Your task to perform on an android device: Search for "usb-c to usb-b" on costco.com, select the first entry, and add it to the cart. Image 0: 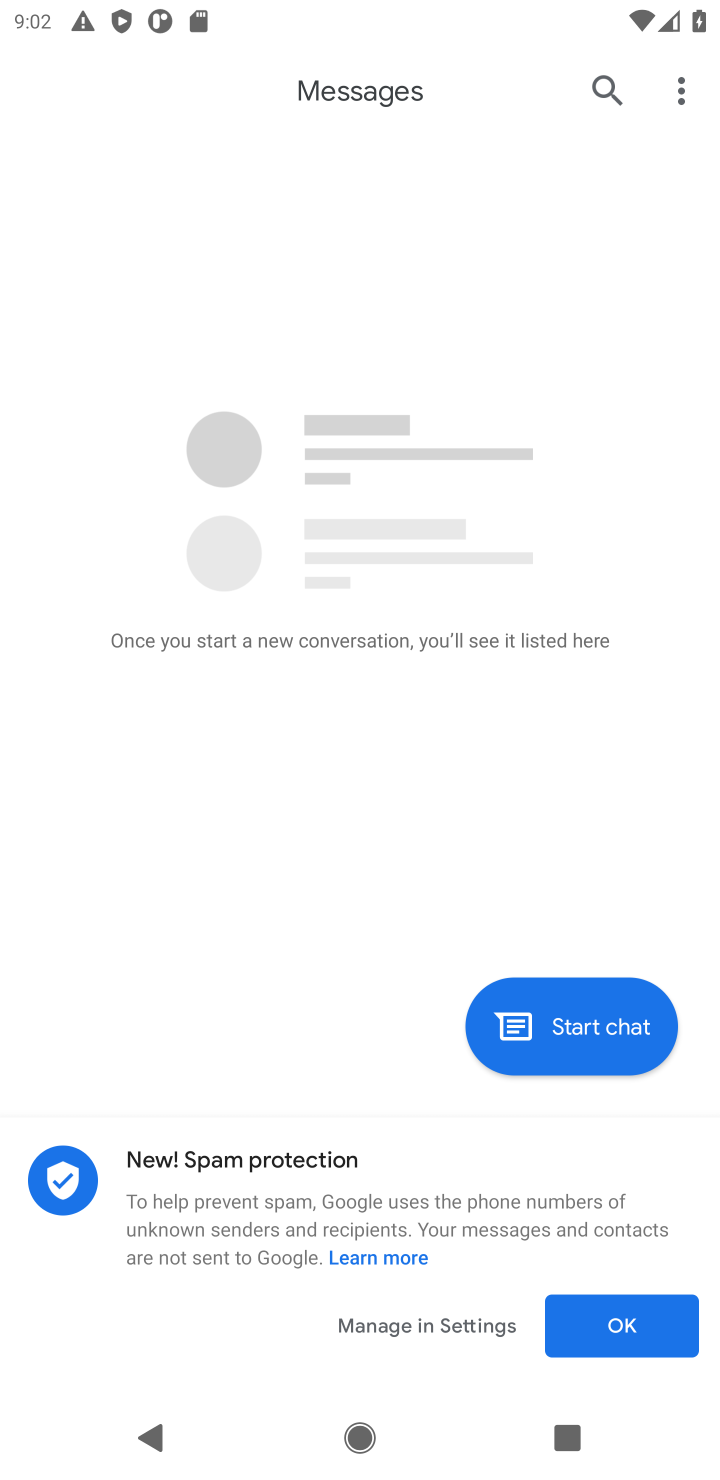
Step 0: press home button
Your task to perform on an android device: Search for "usb-c to usb-b" on costco.com, select the first entry, and add it to the cart. Image 1: 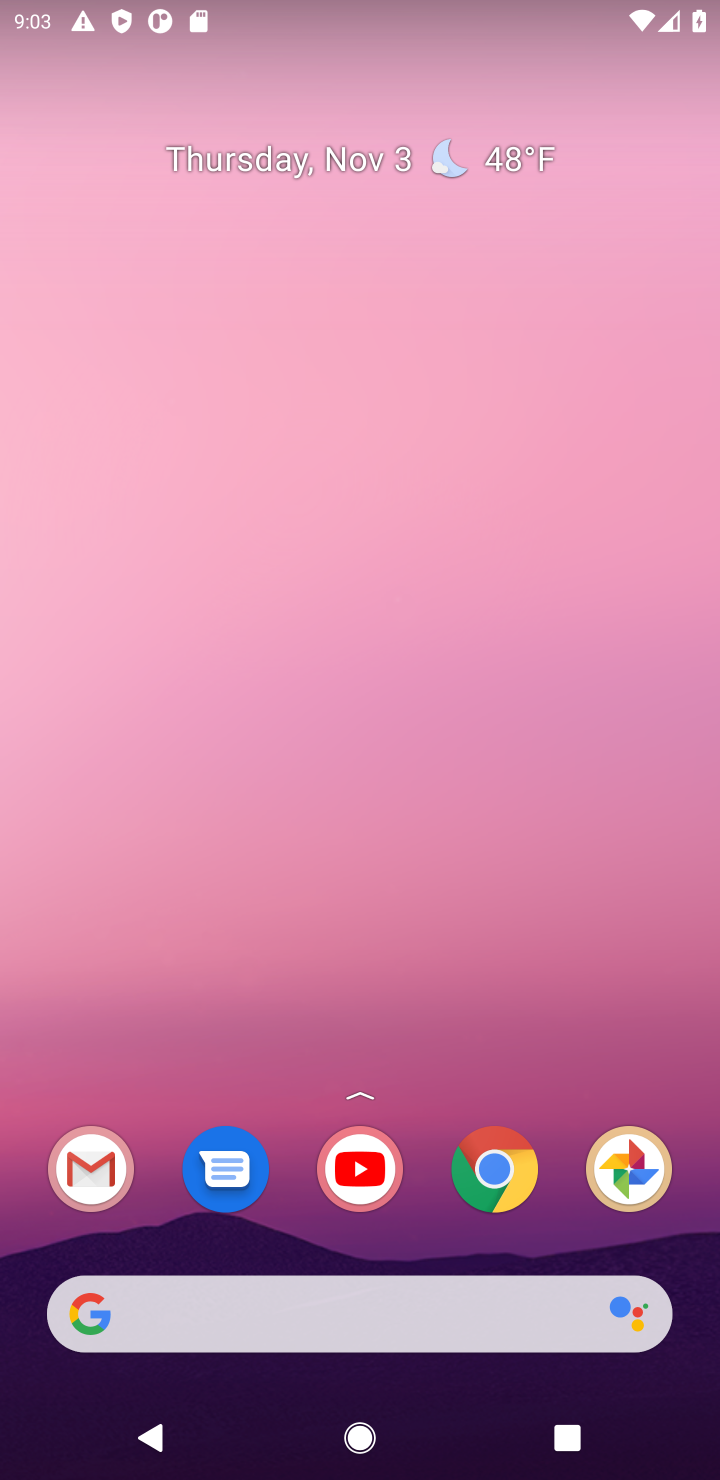
Step 1: drag from (404, 1229) to (361, 346)
Your task to perform on an android device: Search for "usb-c to usb-b" on costco.com, select the first entry, and add it to the cart. Image 2: 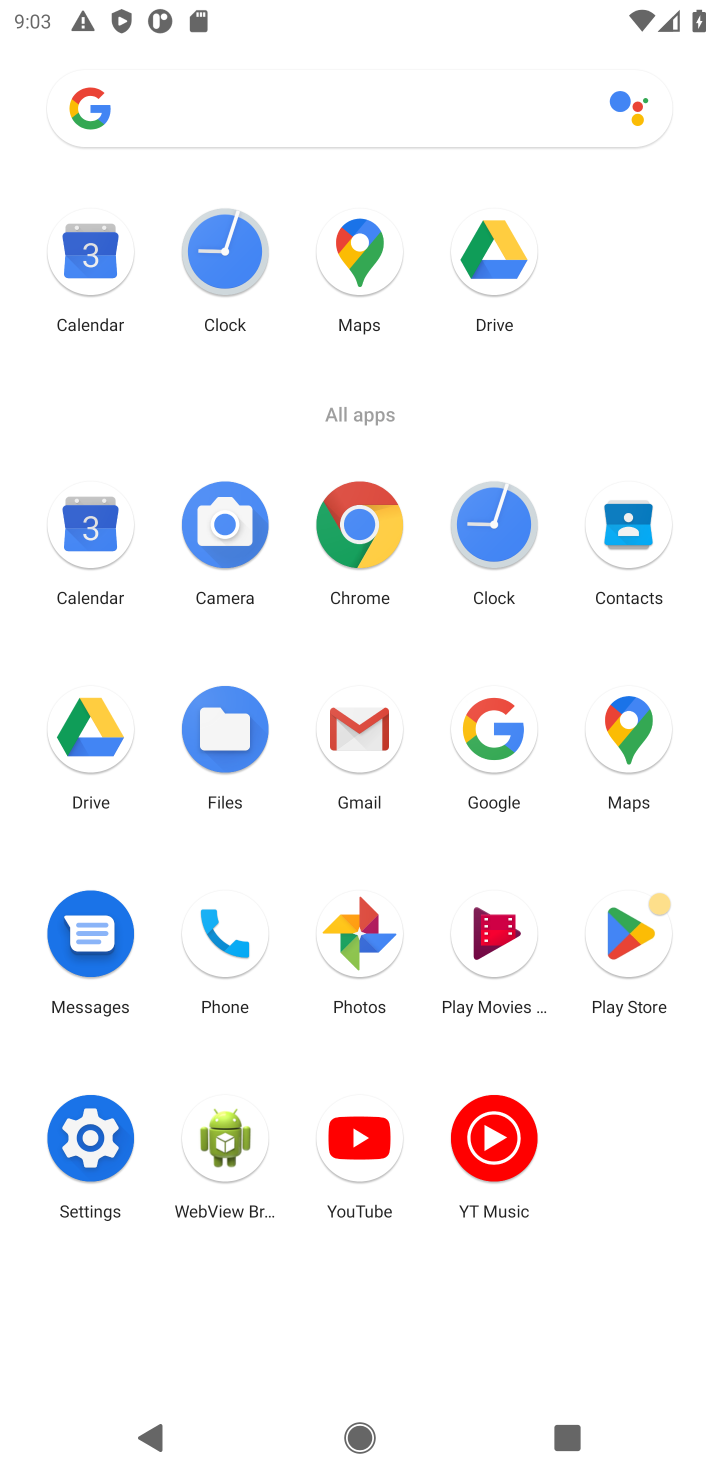
Step 2: click (357, 521)
Your task to perform on an android device: Search for "usb-c to usb-b" on costco.com, select the first entry, and add it to the cart. Image 3: 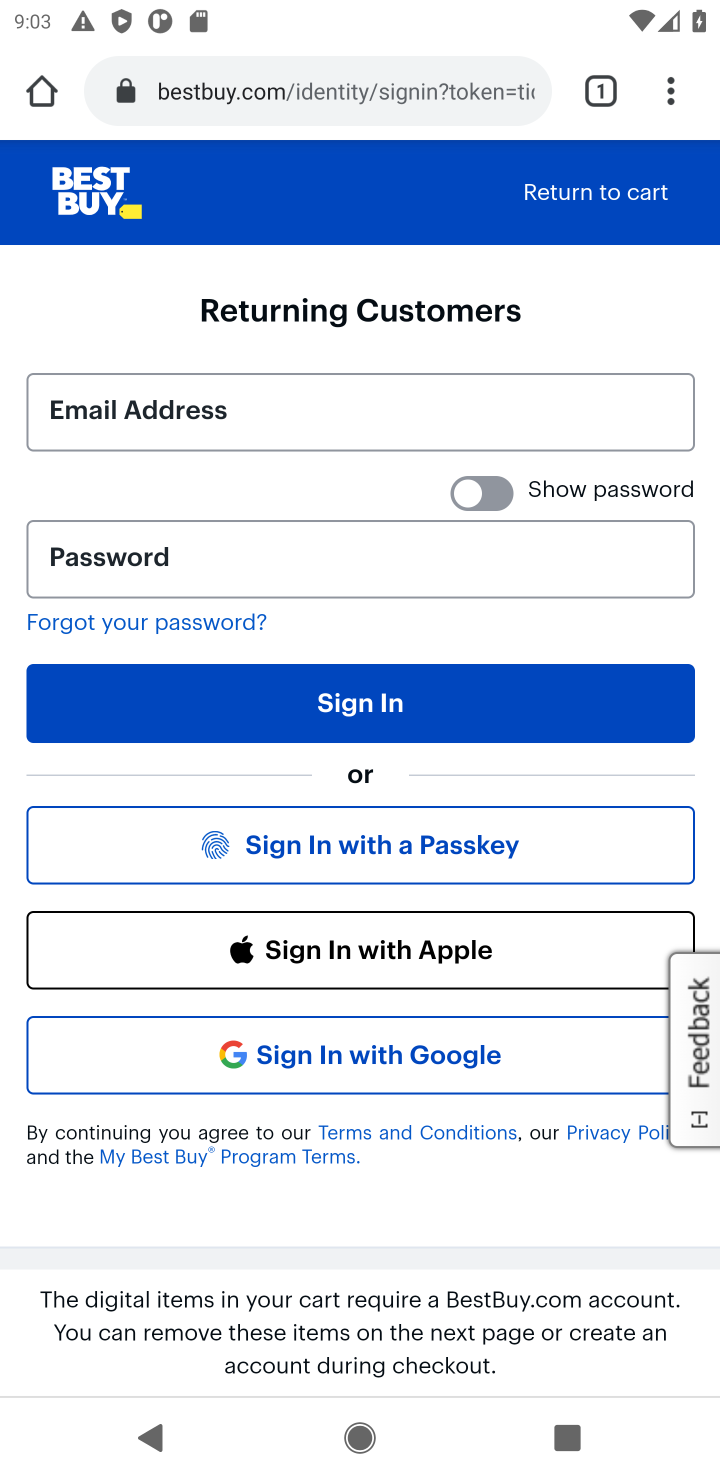
Step 3: click (488, 87)
Your task to perform on an android device: Search for "usb-c to usb-b" on costco.com, select the first entry, and add it to the cart. Image 4: 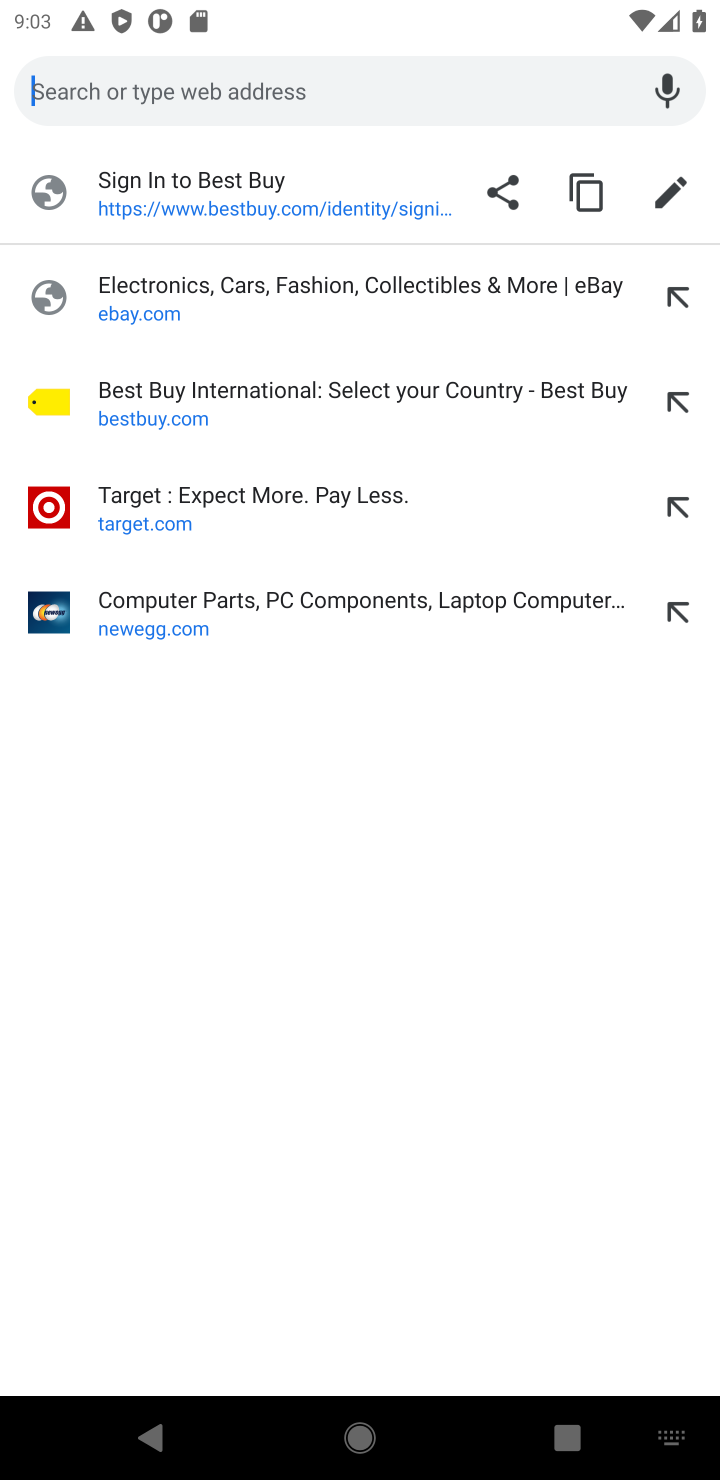
Step 4: type "costco.com"
Your task to perform on an android device: Search for "usb-c to usb-b" on costco.com, select the first entry, and add it to the cart. Image 5: 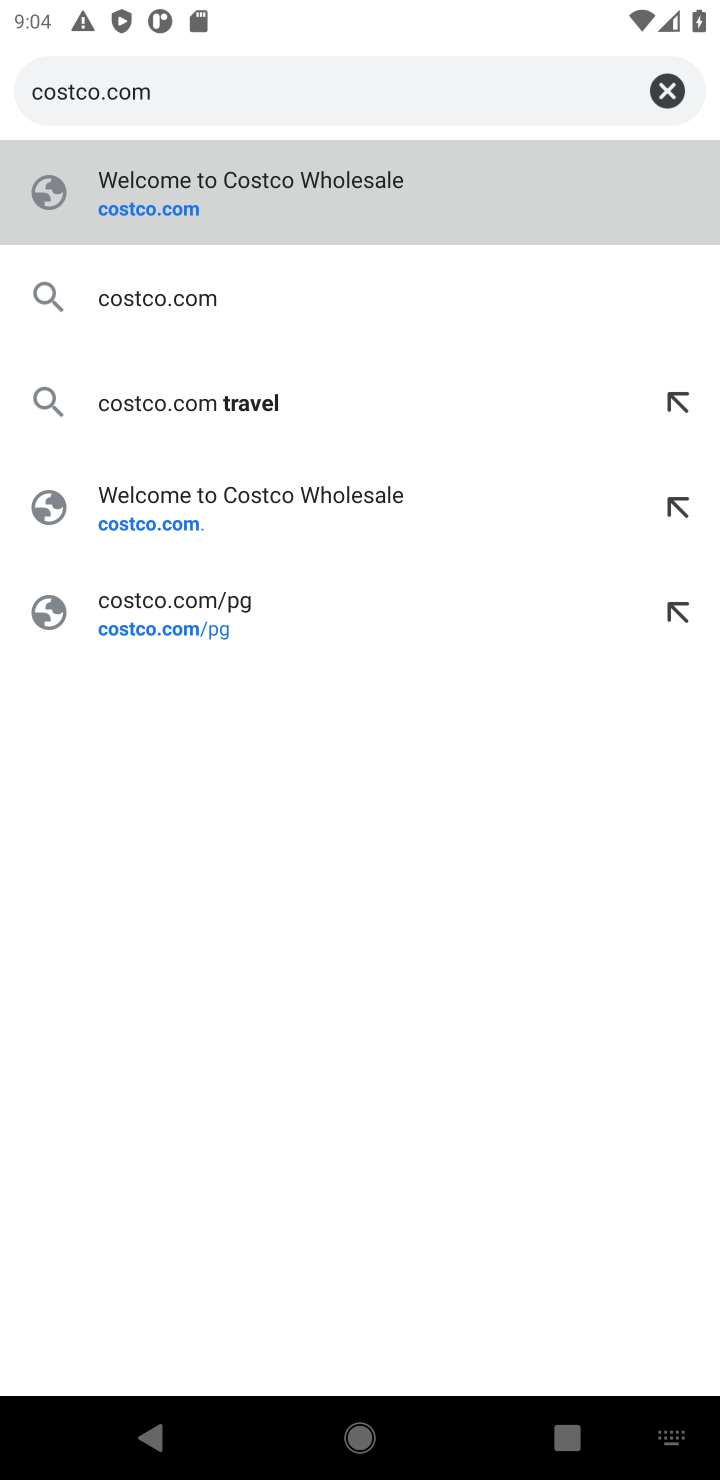
Step 5: press enter
Your task to perform on an android device: Search for "usb-c to usb-b" on costco.com, select the first entry, and add it to the cart. Image 6: 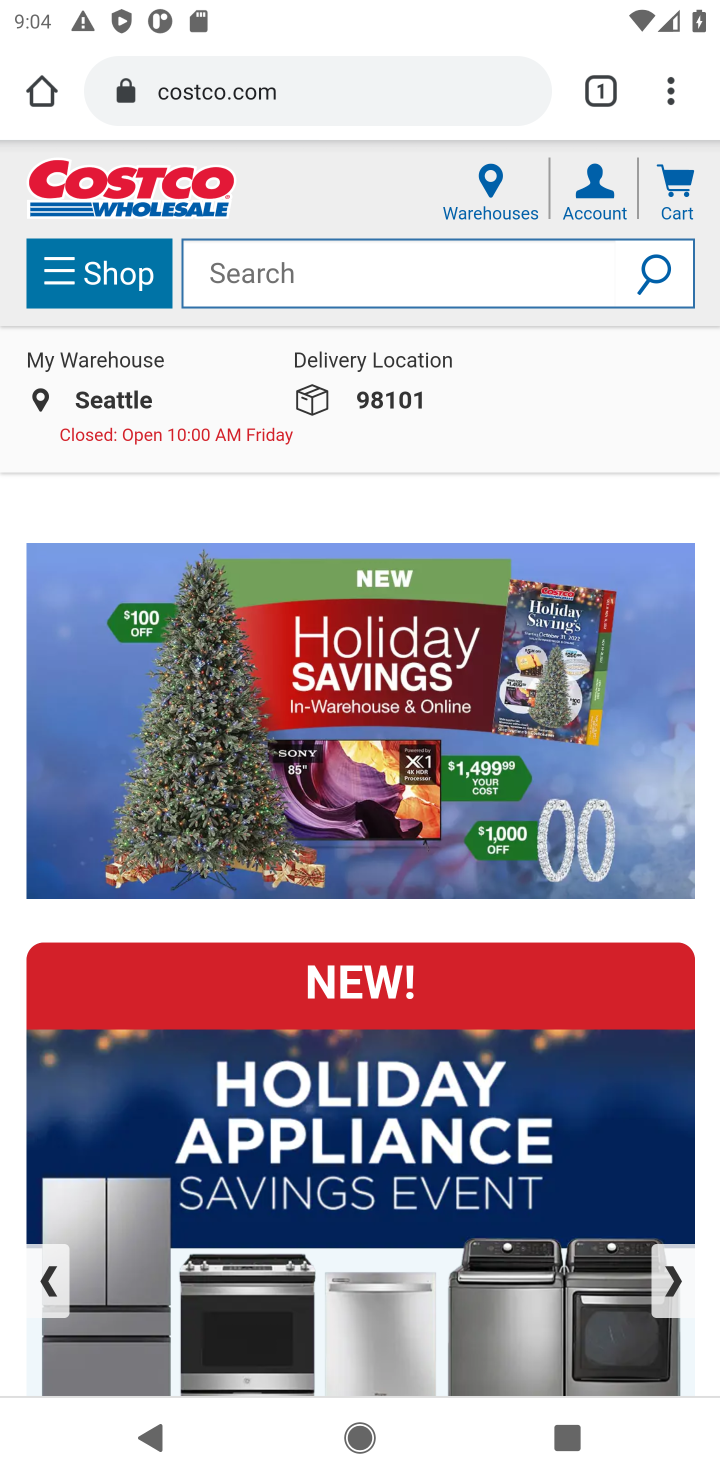
Step 6: click (469, 283)
Your task to perform on an android device: Search for "usb-c to usb-b" on costco.com, select the first entry, and add it to the cart. Image 7: 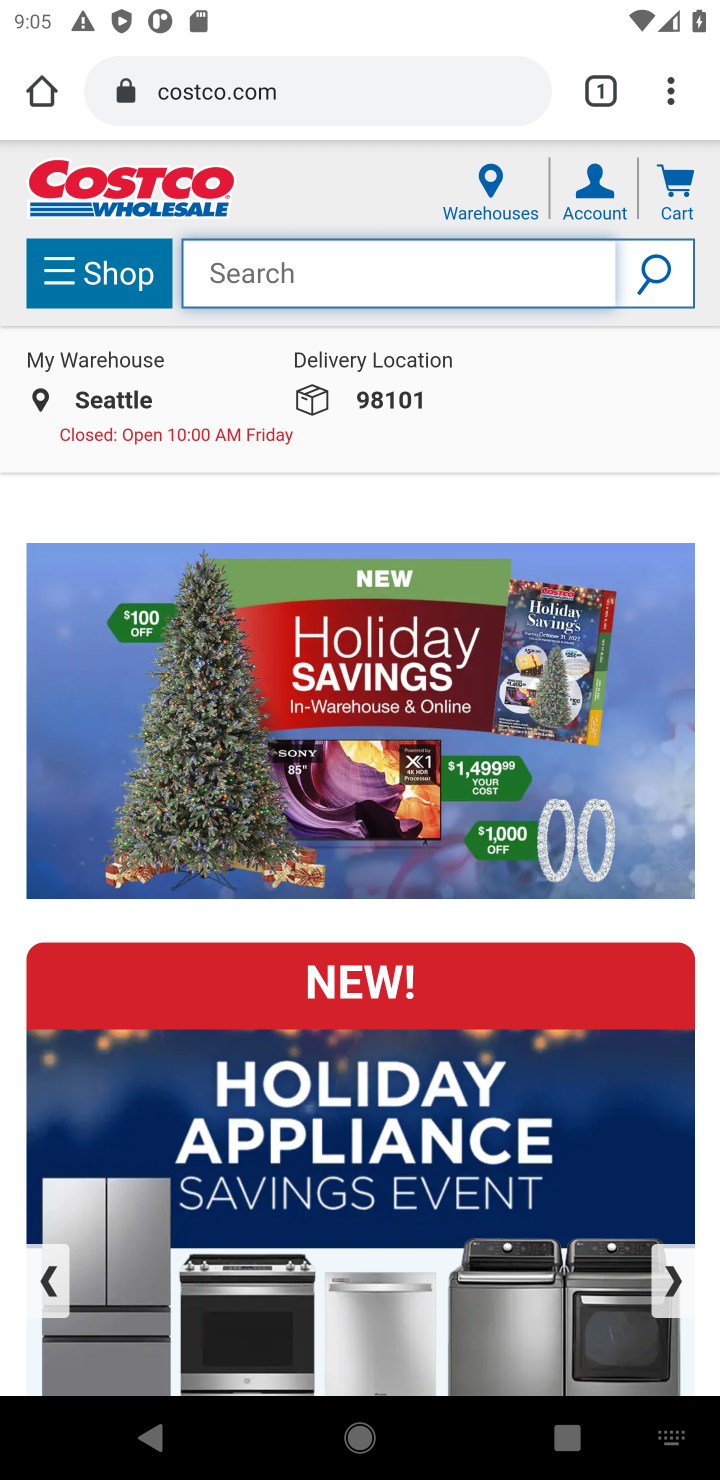
Step 7: type "usb-c to usb-b"
Your task to perform on an android device: Search for "usb-c to usb-b" on costco.com, select the first entry, and add it to the cart. Image 8: 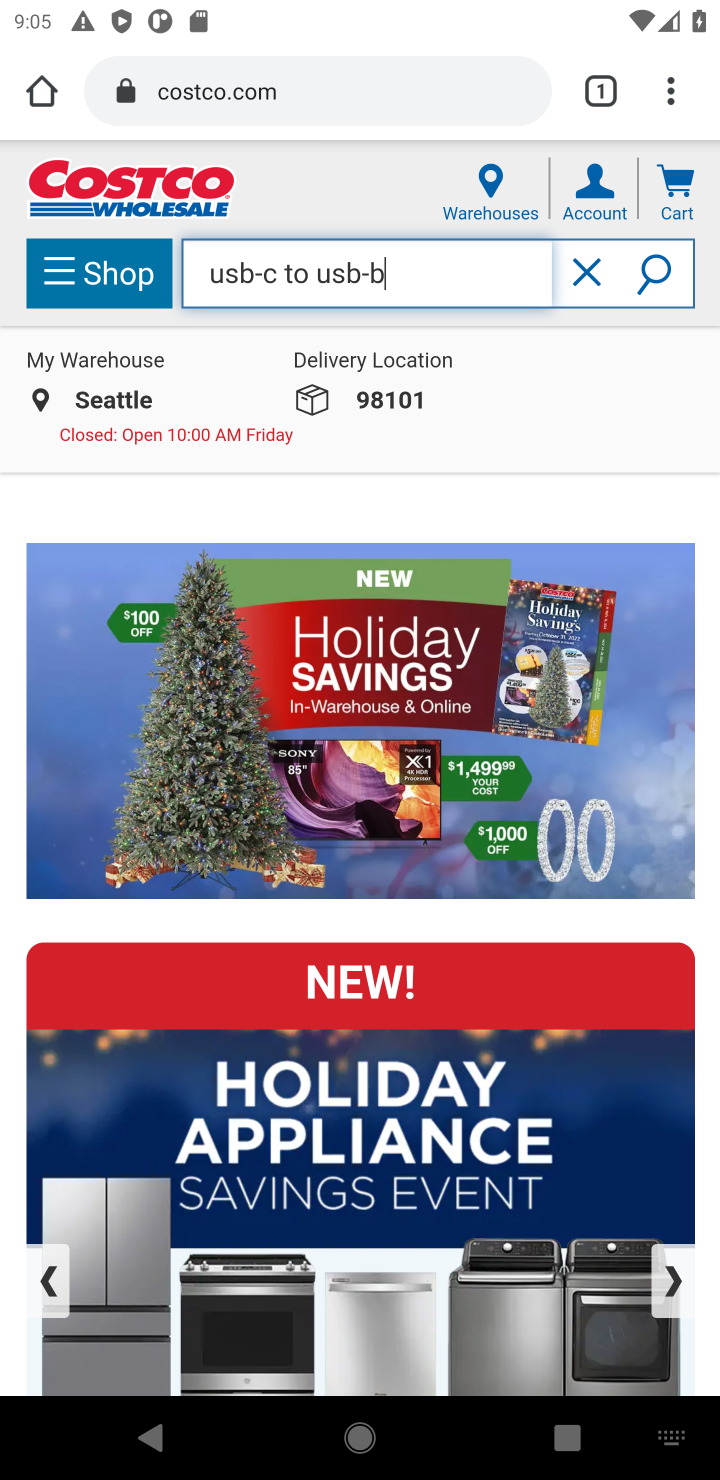
Step 8: press enter
Your task to perform on an android device: Search for "usb-c to usb-b" on costco.com, select the first entry, and add it to the cart. Image 9: 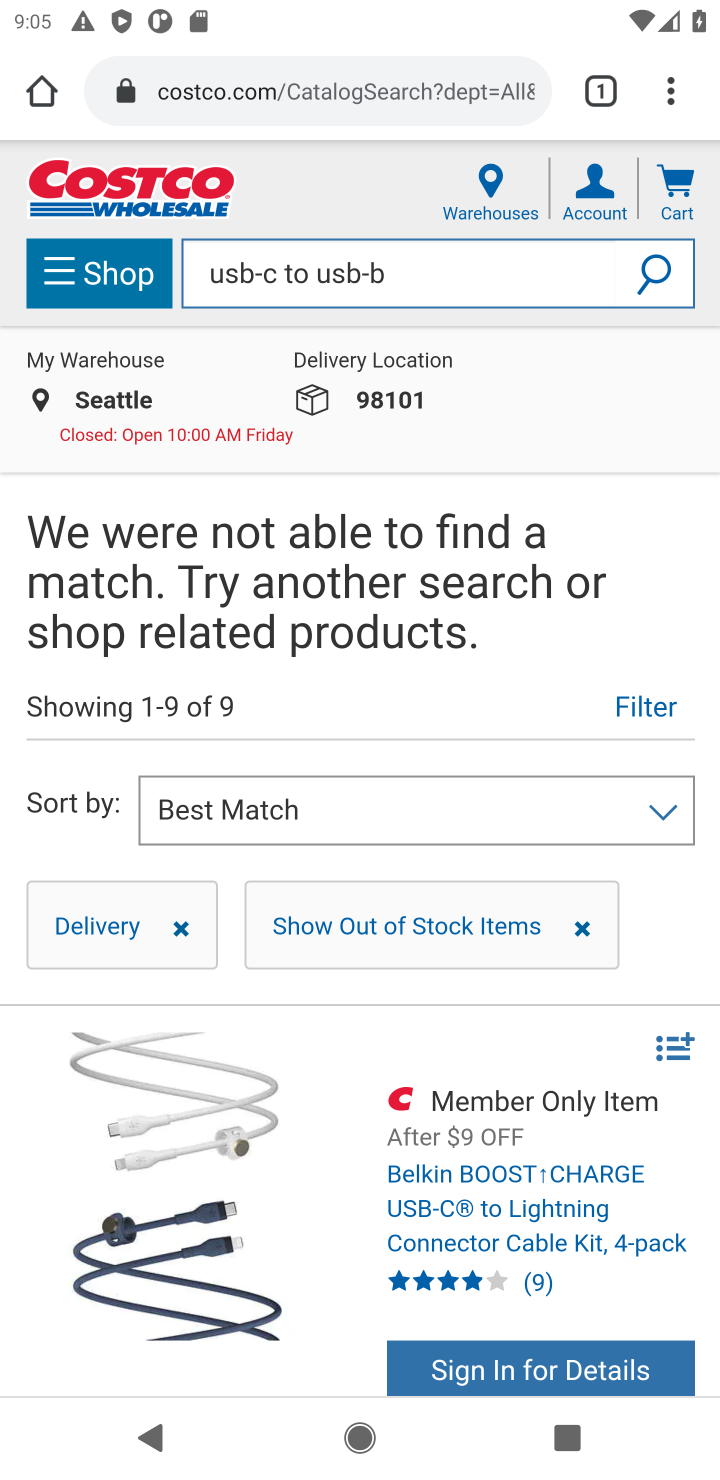
Step 9: task complete